Your task to perform on an android device: What is the news today? Image 0: 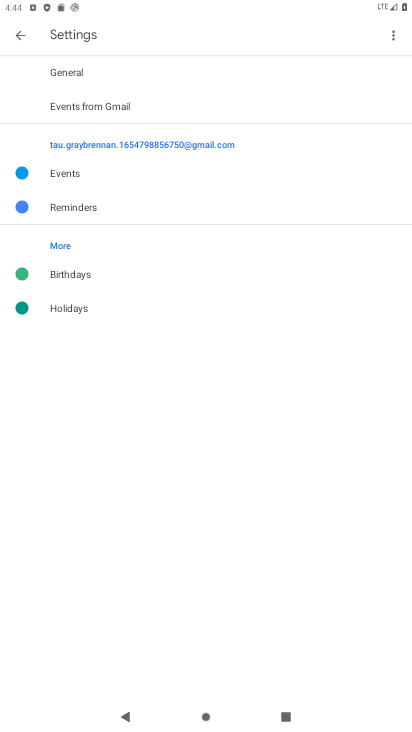
Step 0: press home button
Your task to perform on an android device: What is the news today? Image 1: 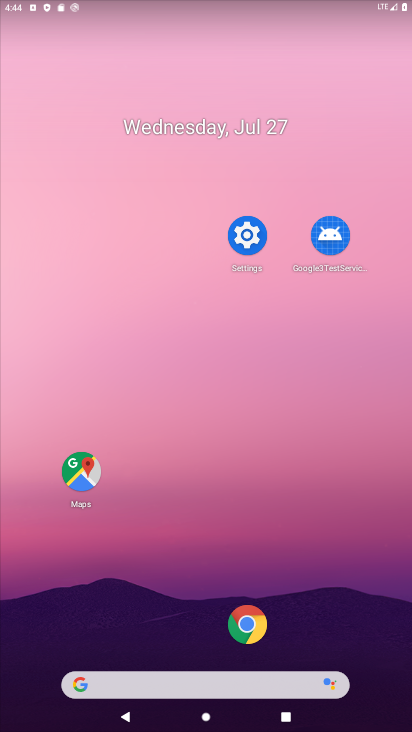
Step 1: click (131, 658)
Your task to perform on an android device: What is the news today? Image 2: 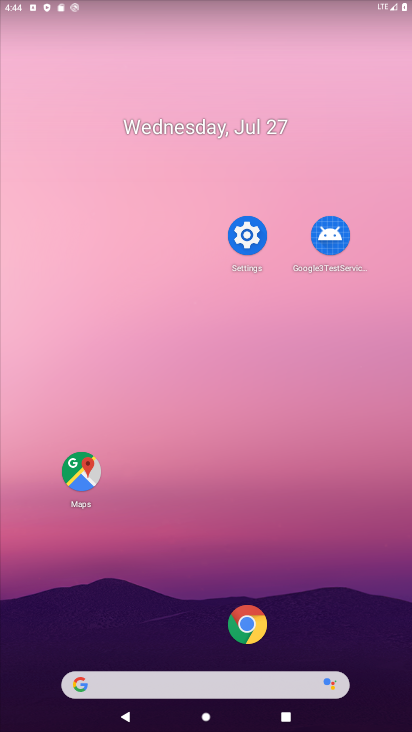
Step 2: click (135, 686)
Your task to perform on an android device: What is the news today? Image 3: 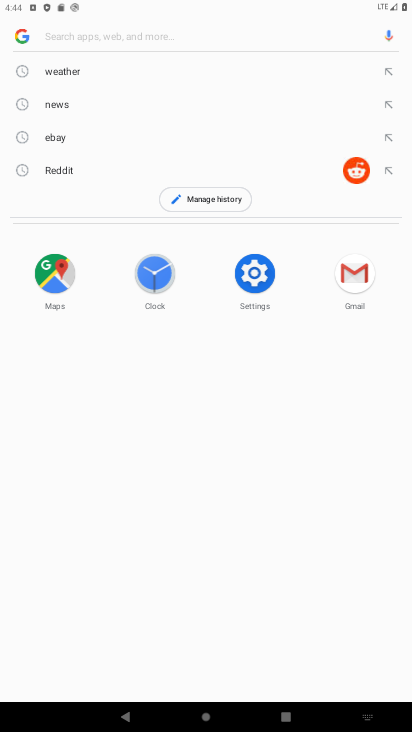
Step 3: click (43, 108)
Your task to perform on an android device: What is the news today? Image 4: 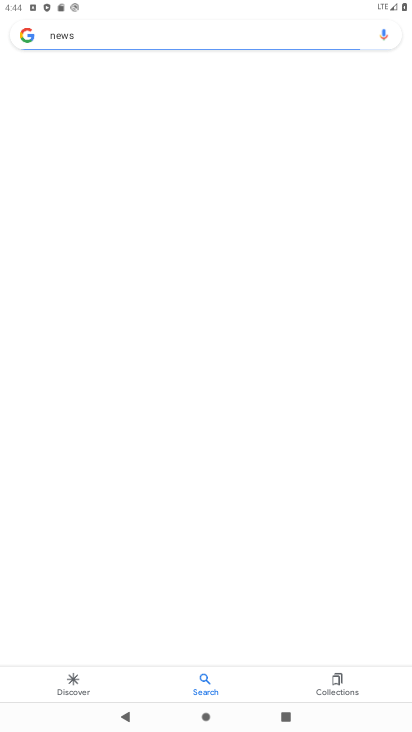
Step 4: task complete